Your task to perform on an android device: Go to Amazon Image 0: 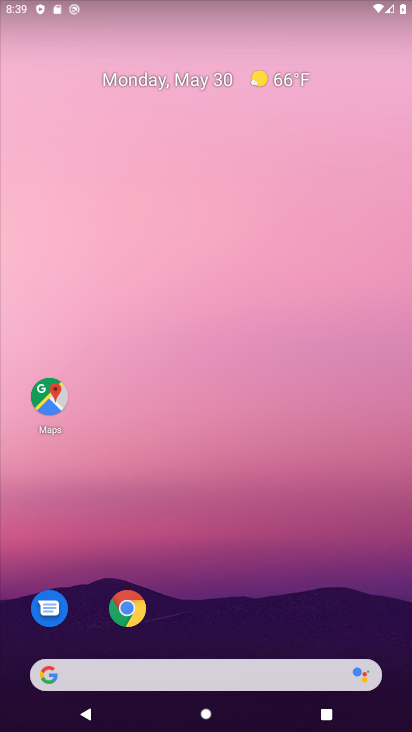
Step 0: click (122, 604)
Your task to perform on an android device: Go to Amazon Image 1: 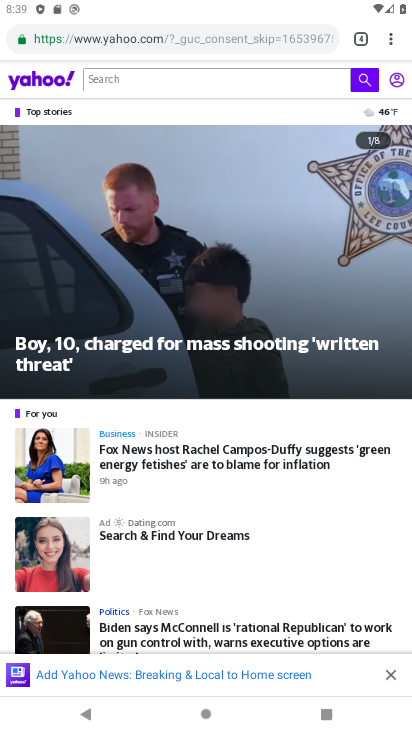
Step 1: click (392, 43)
Your task to perform on an android device: Go to Amazon Image 2: 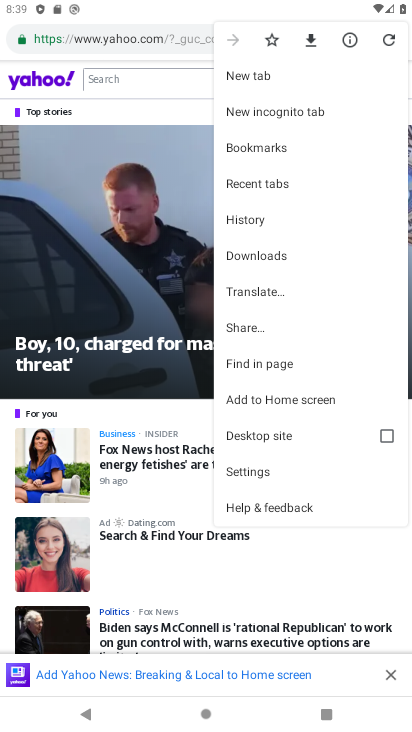
Step 2: click (243, 74)
Your task to perform on an android device: Go to Amazon Image 3: 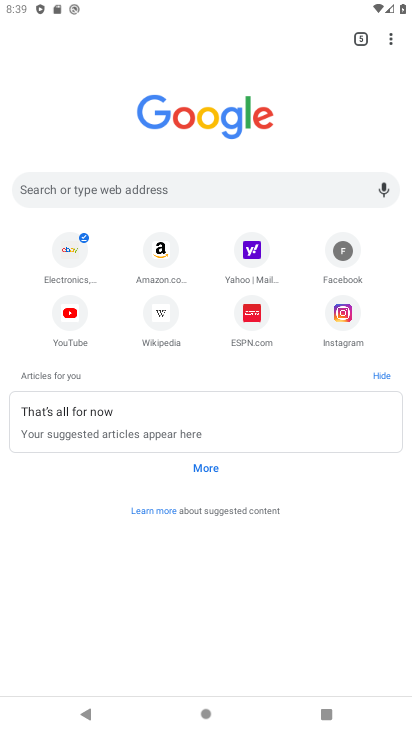
Step 3: click (160, 251)
Your task to perform on an android device: Go to Amazon Image 4: 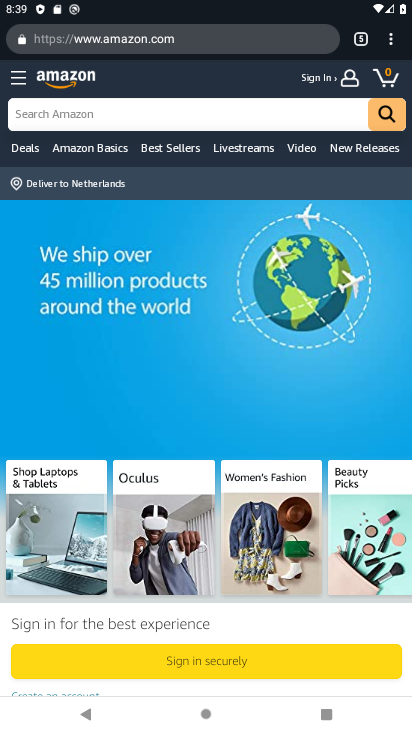
Step 4: task complete